Your task to perform on an android device: Open the Play Movies app and select the watchlist tab. Image 0: 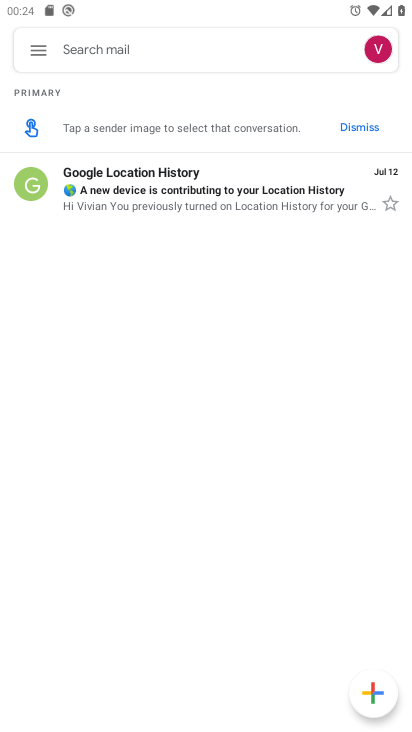
Step 0: press home button
Your task to perform on an android device: Open the Play Movies app and select the watchlist tab. Image 1: 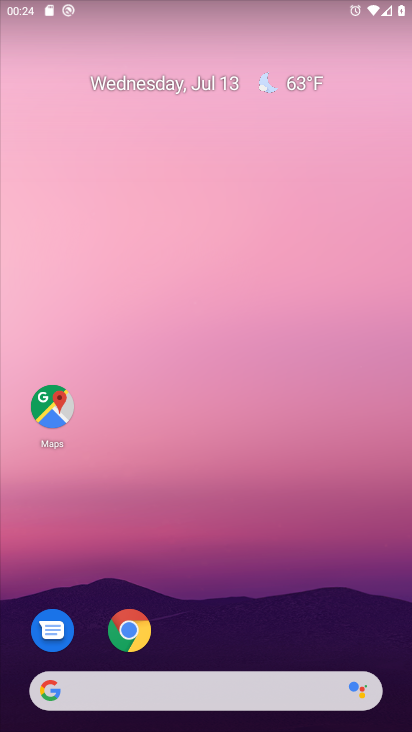
Step 1: drag from (206, 675) to (218, 270)
Your task to perform on an android device: Open the Play Movies app and select the watchlist tab. Image 2: 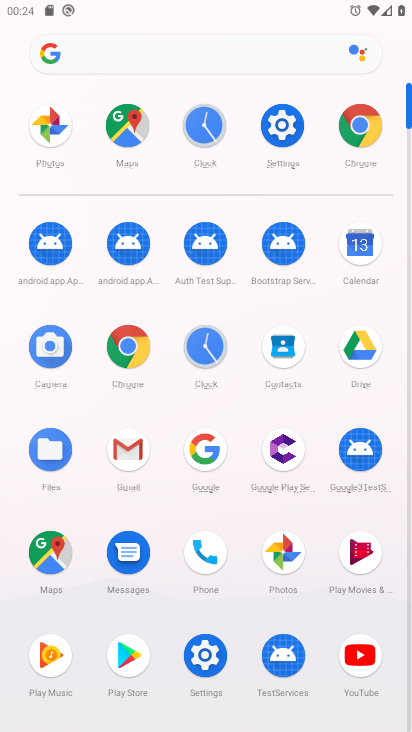
Step 2: drag from (252, 582) to (277, 104)
Your task to perform on an android device: Open the Play Movies app and select the watchlist tab. Image 3: 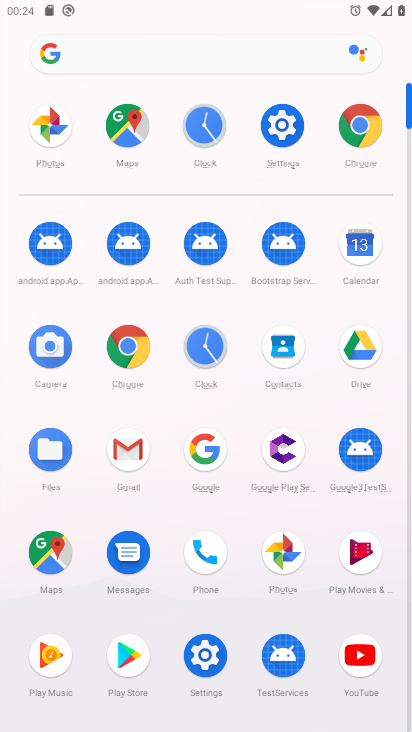
Step 3: drag from (205, 602) to (191, 278)
Your task to perform on an android device: Open the Play Movies app and select the watchlist tab. Image 4: 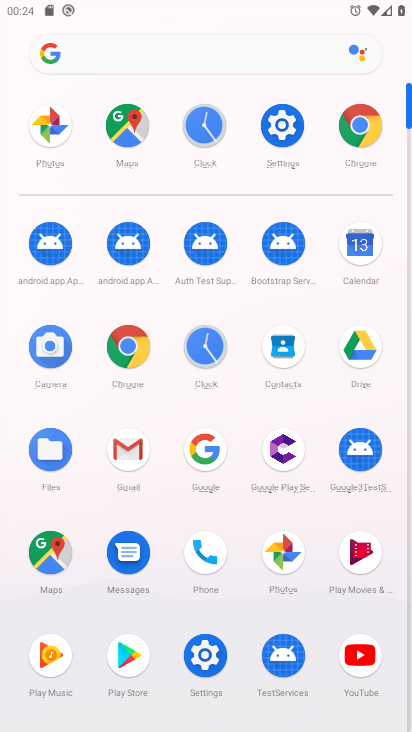
Step 4: click (353, 567)
Your task to perform on an android device: Open the Play Movies app and select the watchlist tab. Image 5: 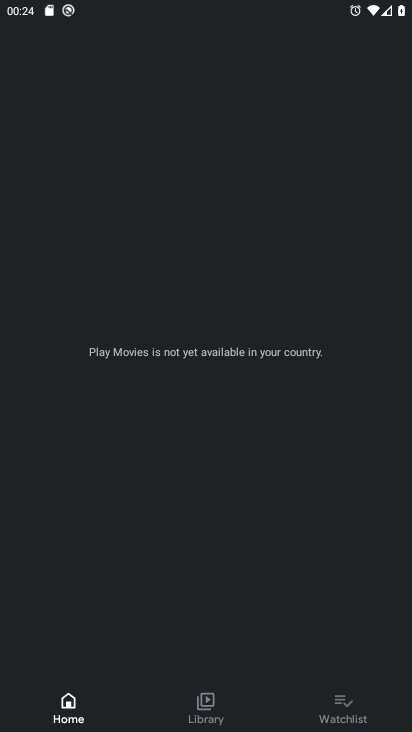
Step 5: click (355, 713)
Your task to perform on an android device: Open the Play Movies app and select the watchlist tab. Image 6: 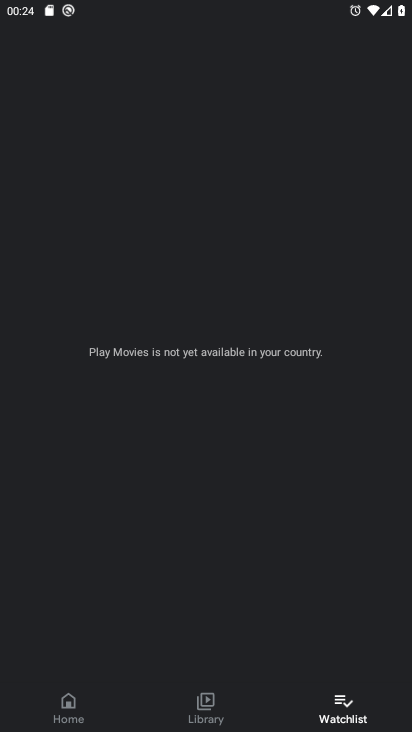
Step 6: task complete